Your task to perform on an android device: turn on location history Image 0: 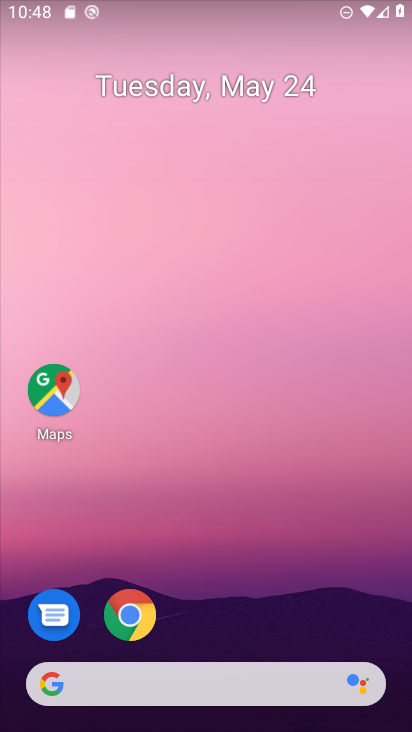
Step 0: drag from (241, 710) to (374, 39)
Your task to perform on an android device: turn on location history Image 1: 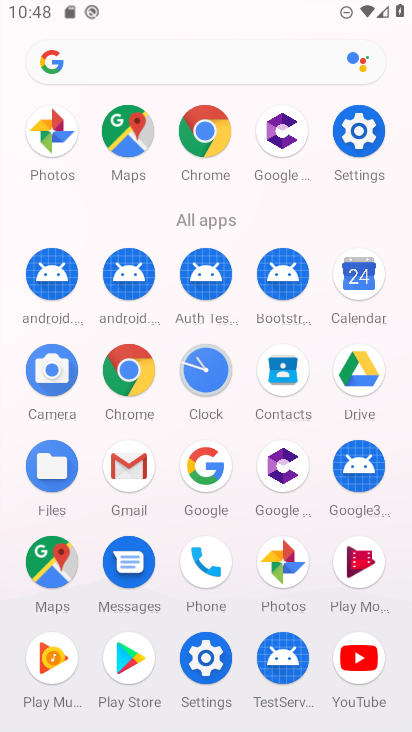
Step 1: click (363, 129)
Your task to perform on an android device: turn on location history Image 2: 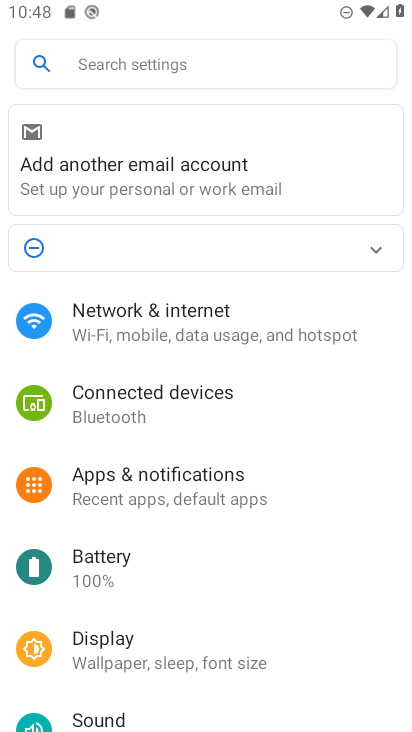
Step 2: click (171, 64)
Your task to perform on an android device: turn on location history Image 3: 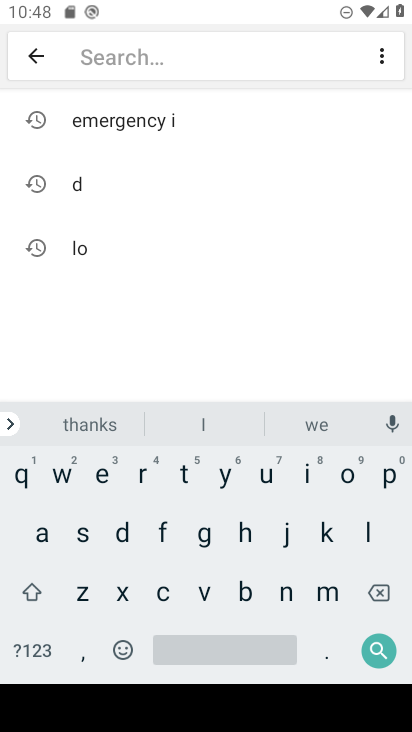
Step 3: click (366, 527)
Your task to perform on an android device: turn on location history Image 4: 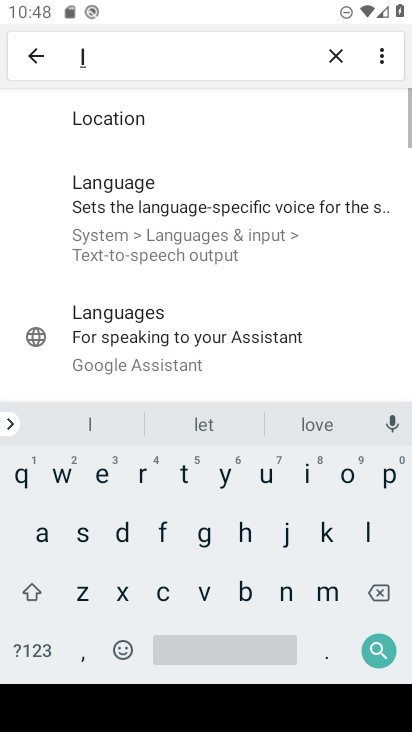
Step 4: click (344, 474)
Your task to perform on an android device: turn on location history Image 5: 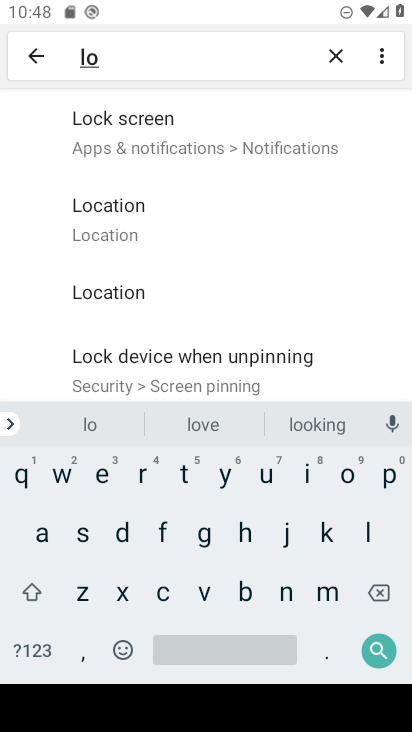
Step 5: click (148, 227)
Your task to perform on an android device: turn on location history Image 6: 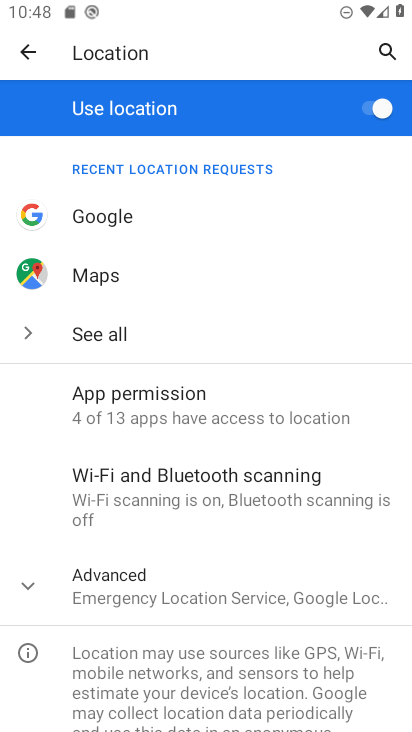
Step 6: click (36, 590)
Your task to perform on an android device: turn on location history Image 7: 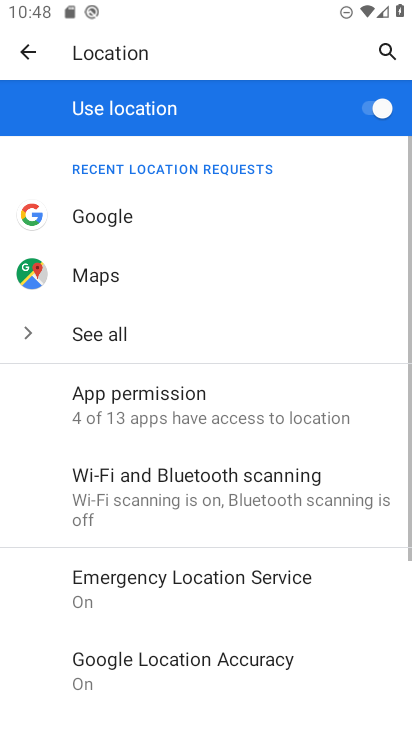
Step 7: drag from (188, 635) to (290, 353)
Your task to perform on an android device: turn on location history Image 8: 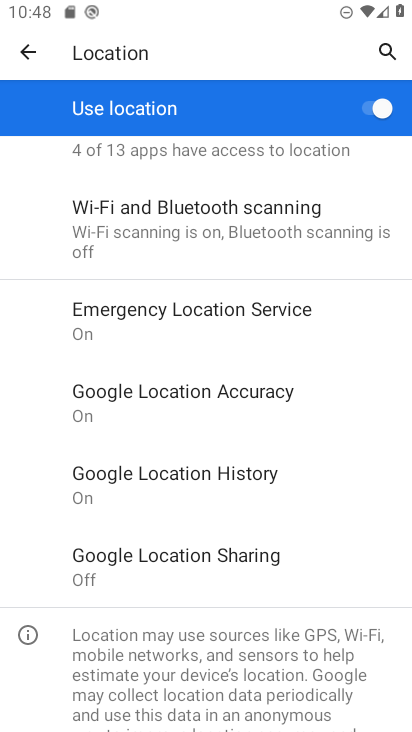
Step 8: click (231, 478)
Your task to perform on an android device: turn on location history Image 9: 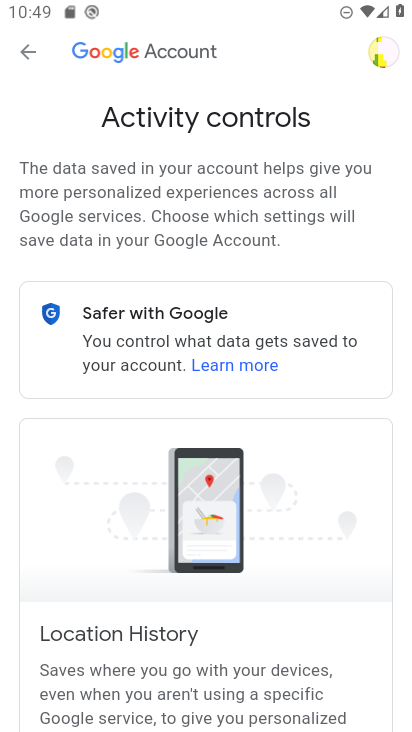
Step 9: task complete